Your task to perform on an android device: remove spam from my inbox in the gmail app Image 0: 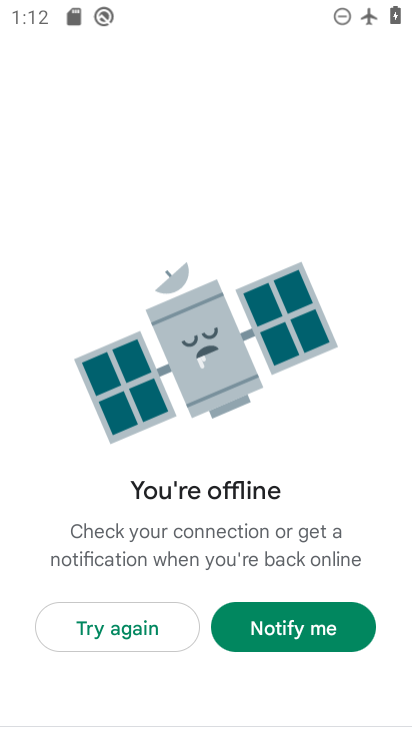
Step 0: press home button
Your task to perform on an android device: remove spam from my inbox in the gmail app Image 1: 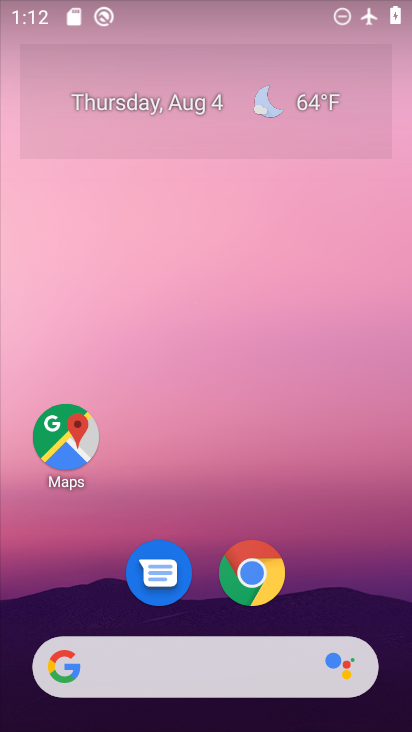
Step 1: drag from (368, 516) to (321, 145)
Your task to perform on an android device: remove spam from my inbox in the gmail app Image 2: 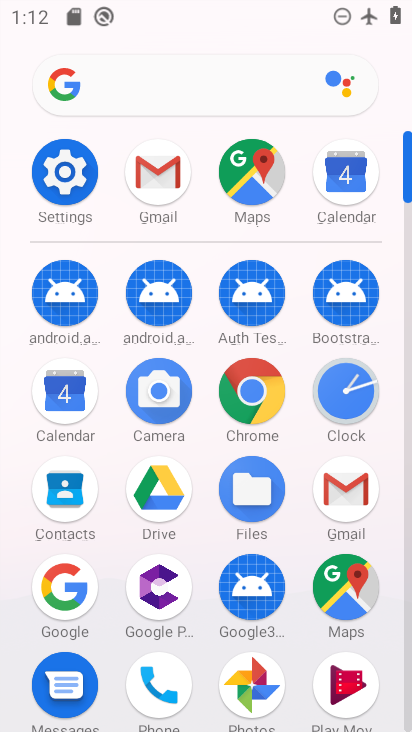
Step 2: click (341, 496)
Your task to perform on an android device: remove spam from my inbox in the gmail app Image 3: 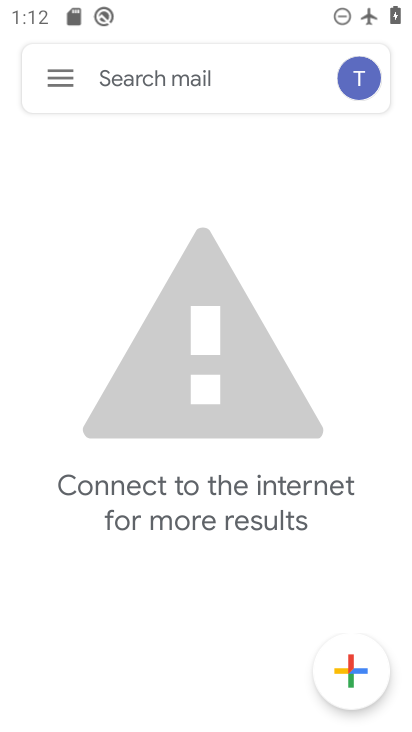
Step 3: click (75, 75)
Your task to perform on an android device: remove spam from my inbox in the gmail app Image 4: 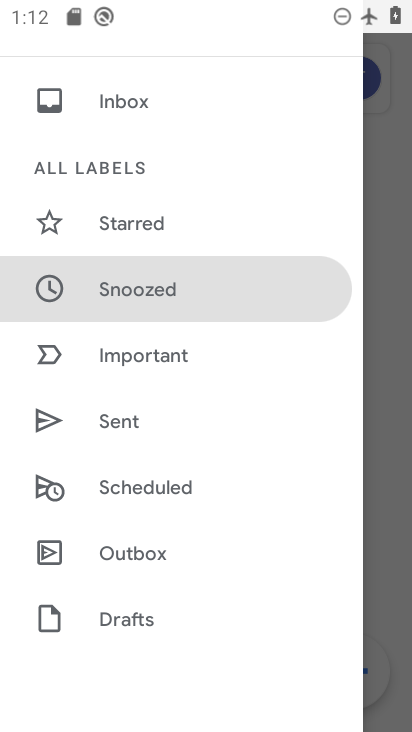
Step 4: drag from (190, 556) to (212, 228)
Your task to perform on an android device: remove spam from my inbox in the gmail app Image 5: 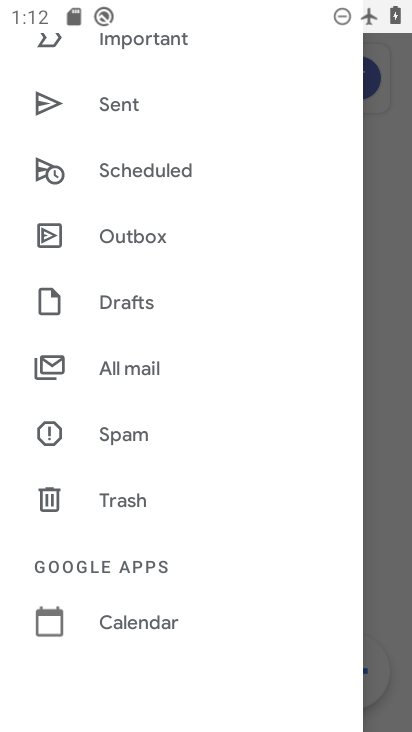
Step 5: click (148, 438)
Your task to perform on an android device: remove spam from my inbox in the gmail app Image 6: 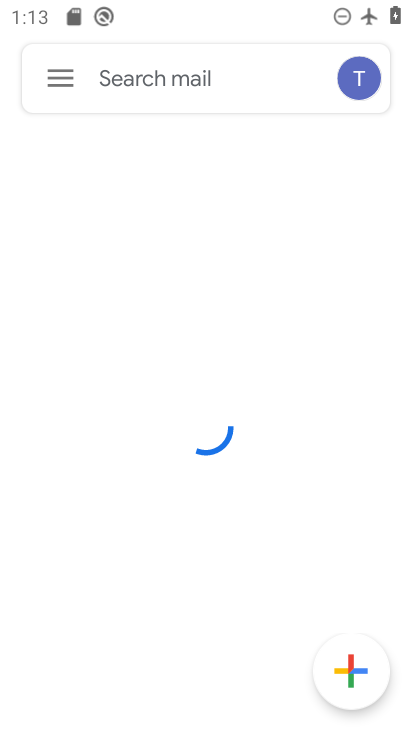
Step 6: click (67, 75)
Your task to perform on an android device: remove spam from my inbox in the gmail app Image 7: 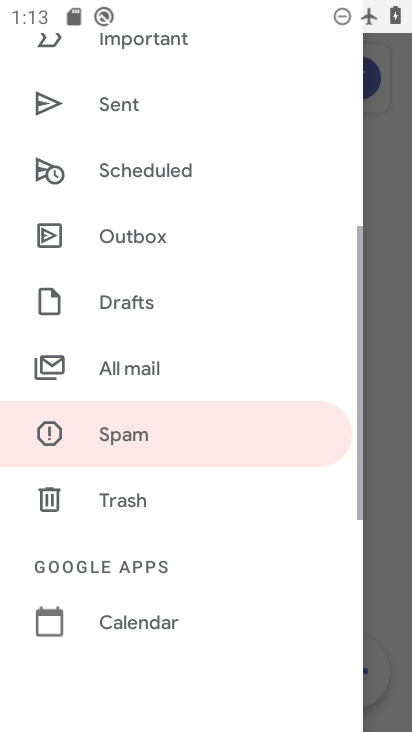
Step 7: drag from (145, 122) to (127, 549)
Your task to perform on an android device: remove spam from my inbox in the gmail app Image 8: 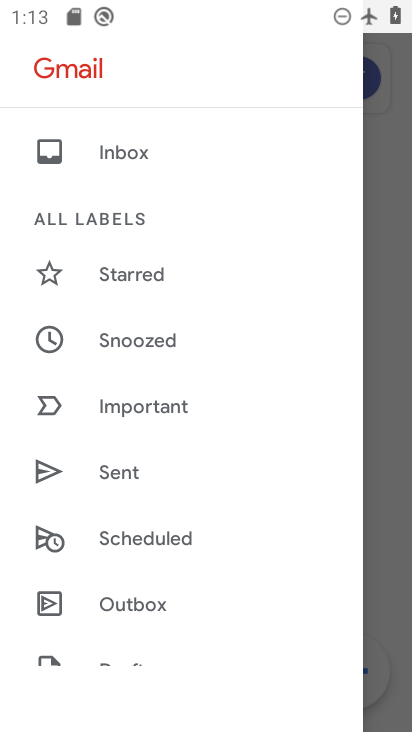
Step 8: click (136, 142)
Your task to perform on an android device: remove spam from my inbox in the gmail app Image 9: 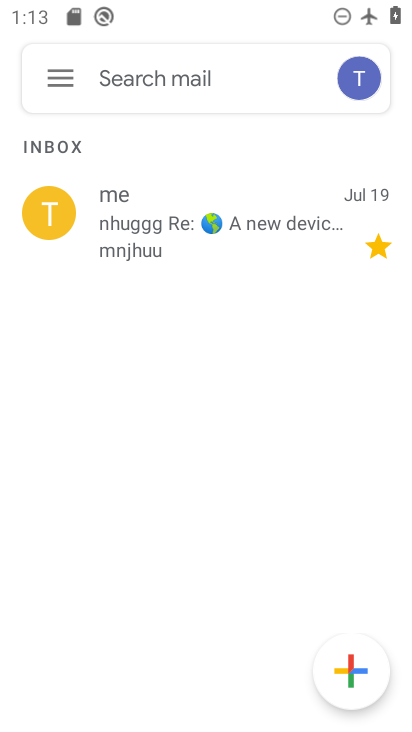
Step 9: task complete